Your task to perform on an android device: Clear the shopping cart on bestbuy. Search for bose soundsport free on bestbuy, select the first entry, add it to the cart, then select checkout. Image 0: 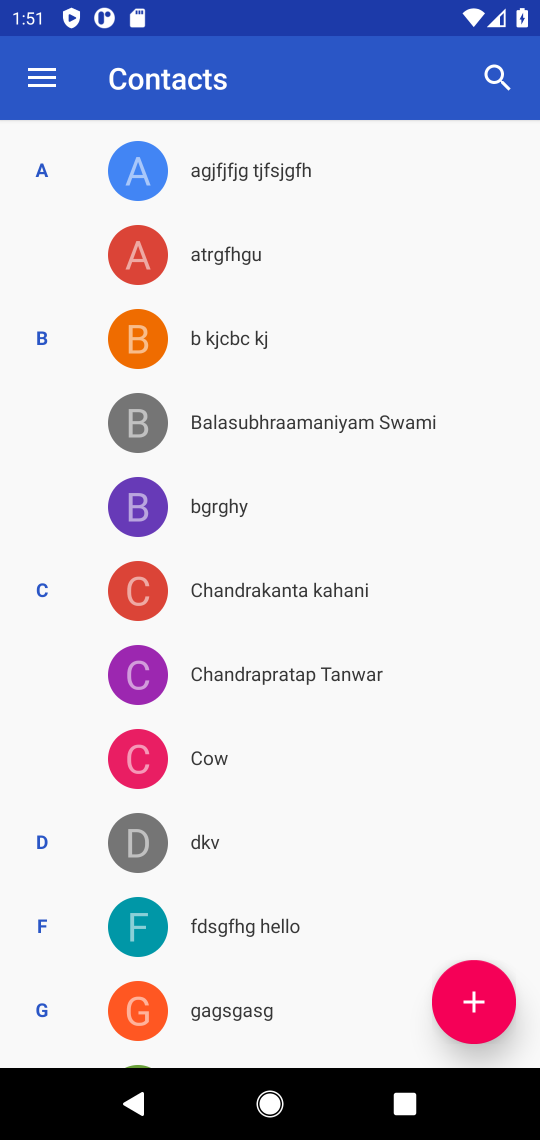
Step 0: press home button
Your task to perform on an android device: Clear the shopping cart on bestbuy. Search for bose soundsport free on bestbuy, select the first entry, add it to the cart, then select checkout. Image 1: 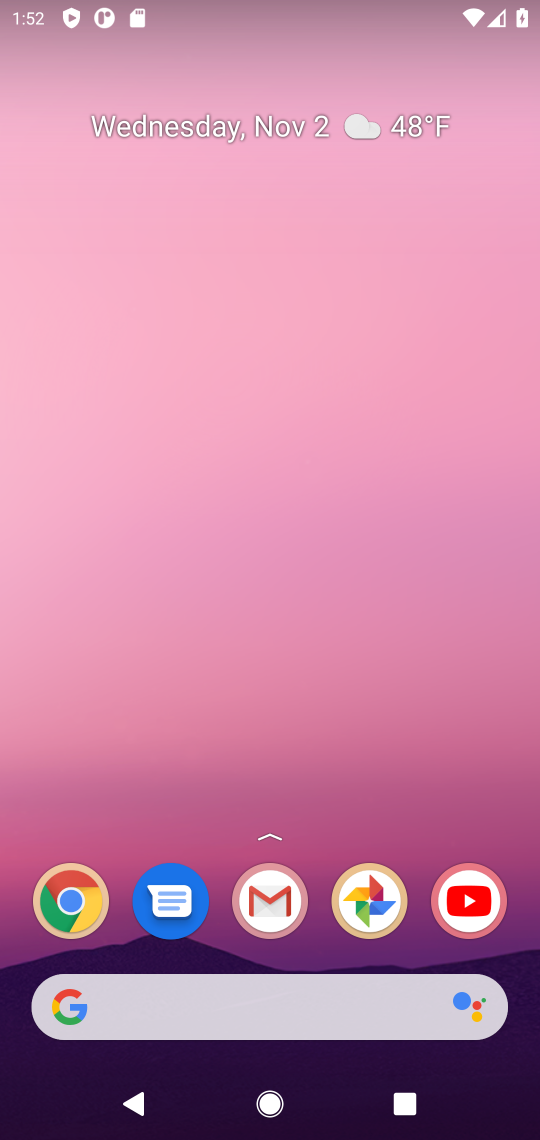
Step 1: drag from (300, 937) to (377, 84)
Your task to perform on an android device: Clear the shopping cart on bestbuy. Search for bose soundsport free on bestbuy, select the first entry, add it to the cart, then select checkout. Image 2: 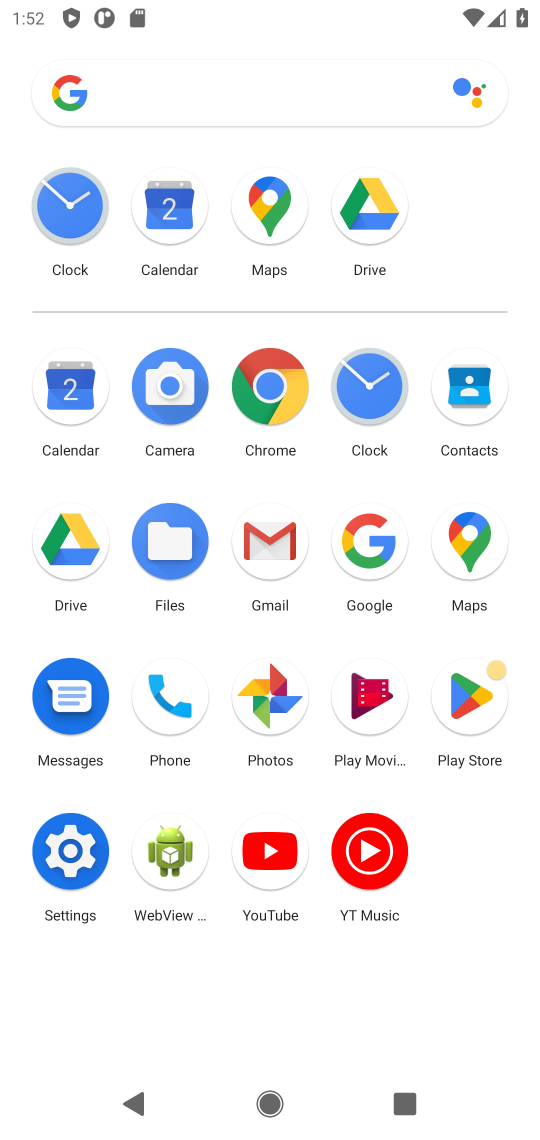
Step 2: click (271, 386)
Your task to perform on an android device: Clear the shopping cart on bestbuy. Search for bose soundsport free on bestbuy, select the first entry, add it to the cart, then select checkout. Image 3: 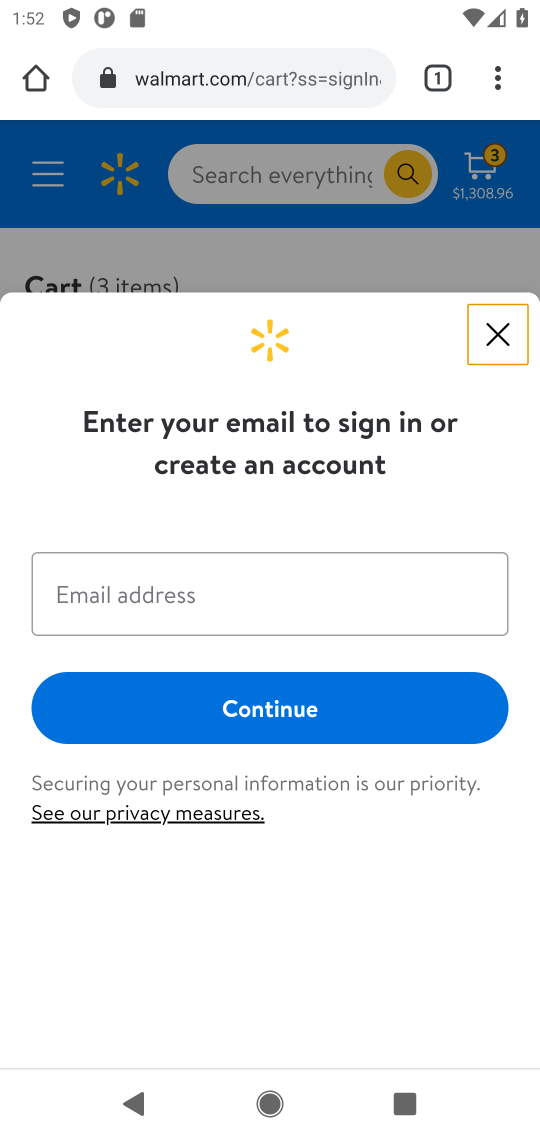
Step 3: click (294, 78)
Your task to perform on an android device: Clear the shopping cart on bestbuy. Search for bose soundsport free on bestbuy, select the first entry, add it to the cart, then select checkout. Image 4: 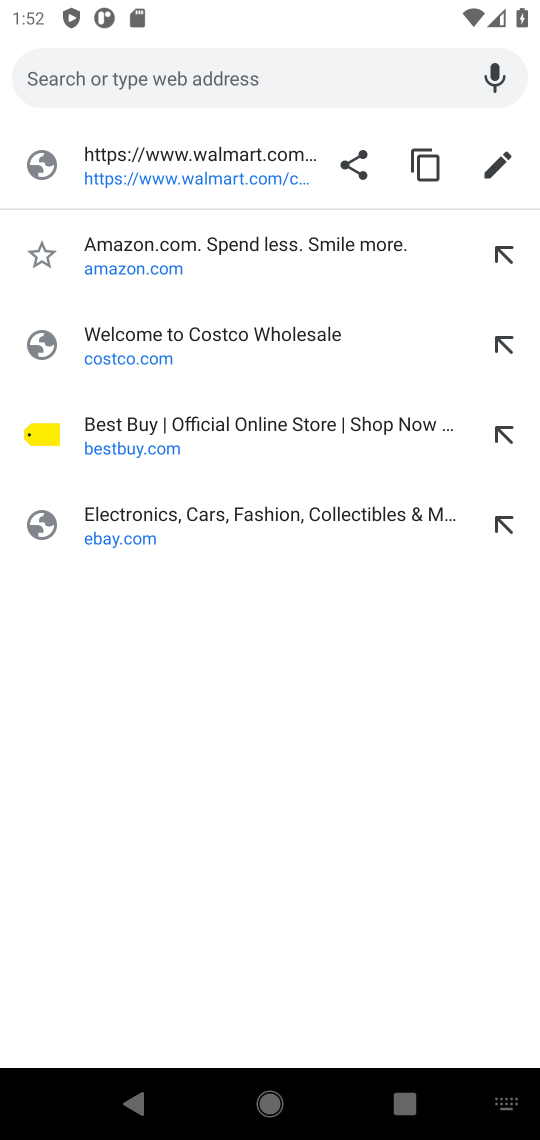
Step 4: type "bestbuy.com"
Your task to perform on an android device: Clear the shopping cart on bestbuy. Search for bose soundsport free on bestbuy, select the first entry, add it to the cart, then select checkout. Image 5: 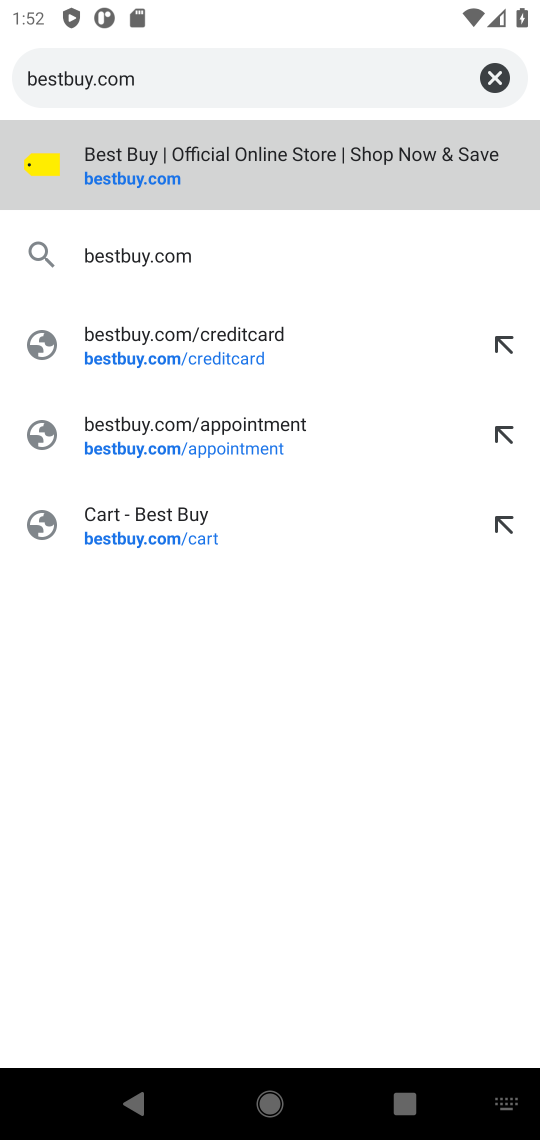
Step 5: press enter
Your task to perform on an android device: Clear the shopping cart on bestbuy. Search for bose soundsport free on bestbuy, select the first entry, add it to the cart, then select checkout. Image 6: 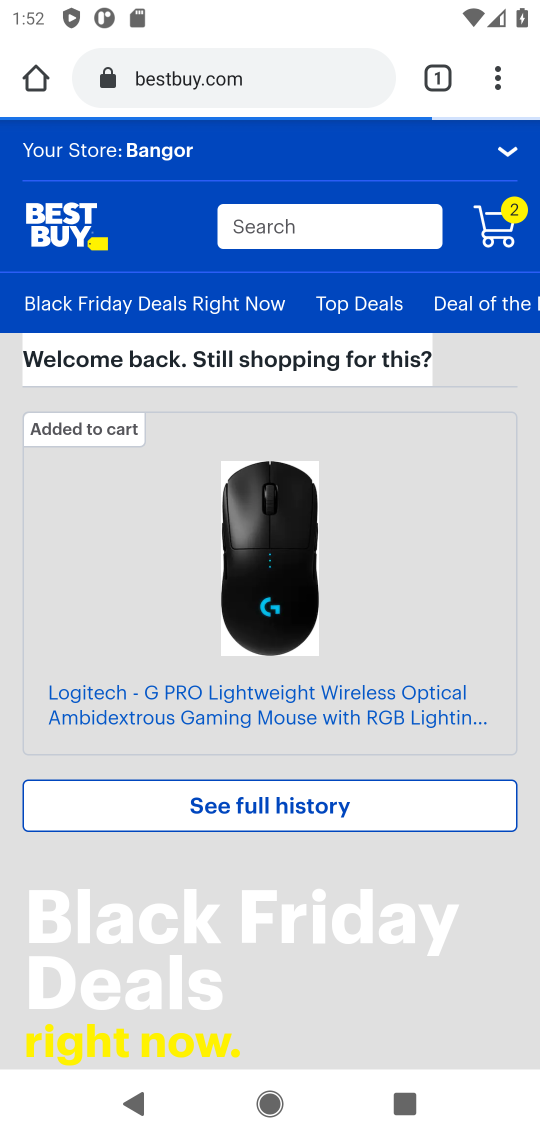
Step 6: click (488, 232)
Your task to perform on an android device: Clear the shopping cart on bestbuy. Search for bose soundsport free on bestbuy, select the first entry, add it to the cart, then select checkout. Image 7: 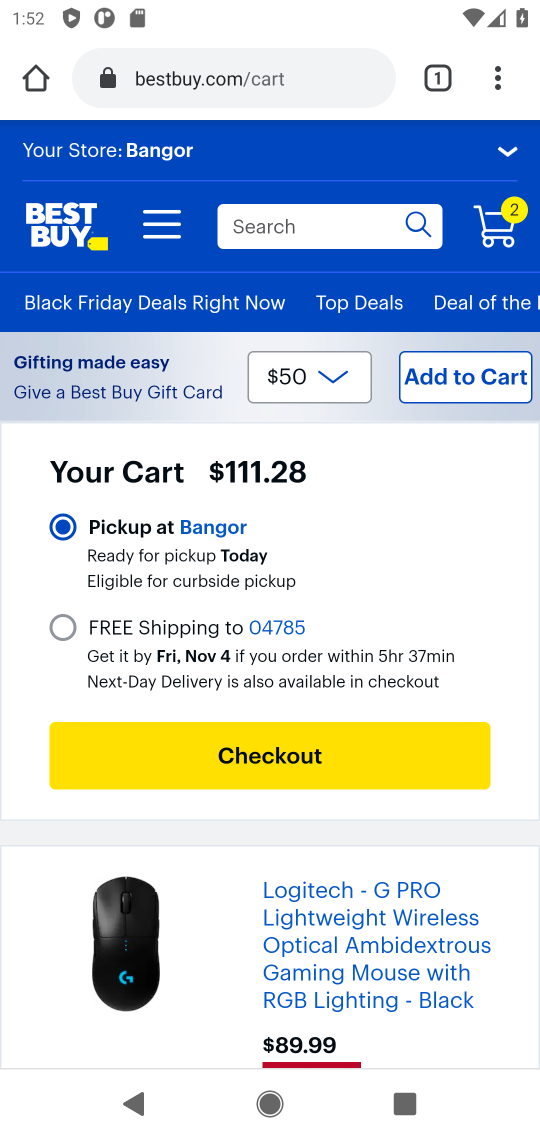
Step 7: drag from (373, 974) to (418, 579)
Your task to perform on an android device: Clear the shopping cart on bestbuy. Search for bose soundsport free on bestbuy, select the first entry, add it to the cart, then select checkout. Image 8: 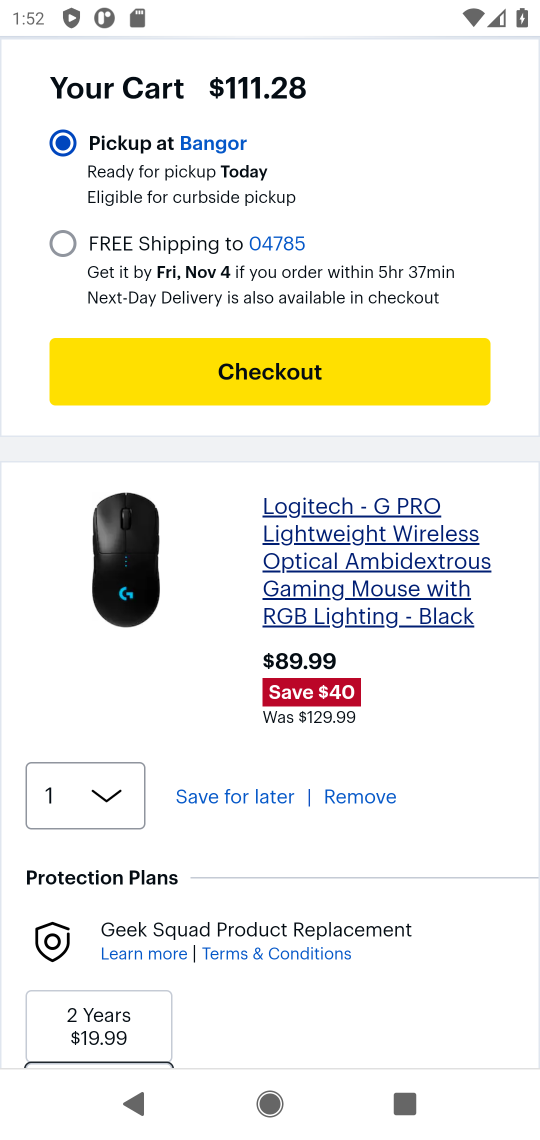
Step 8: click (368, 792)
Your task to perform on an android device: Clear the shopping cart on bestbuy. Search for bose soundsport free on bestbuy, select the first entry, add it to the cart, then select checkout. Image 9: 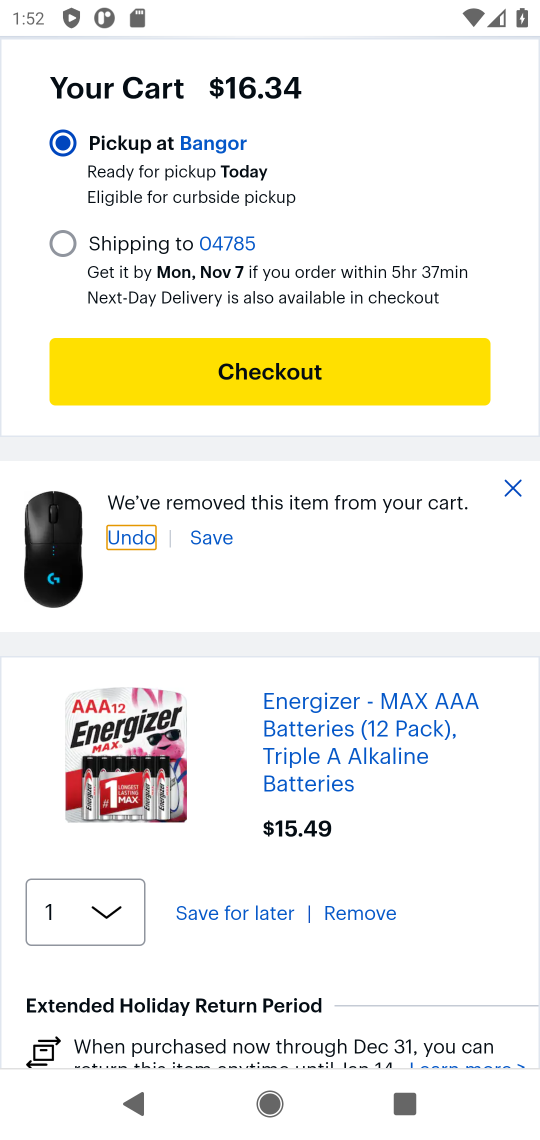
Step 9: click (382, 912)
Your task to perform on an android device: Clear the shopping cart on bestbuy. Search for bose soundsport free on bestbuy, select the first entry, add it to the cart, then select checkout. Image 10: 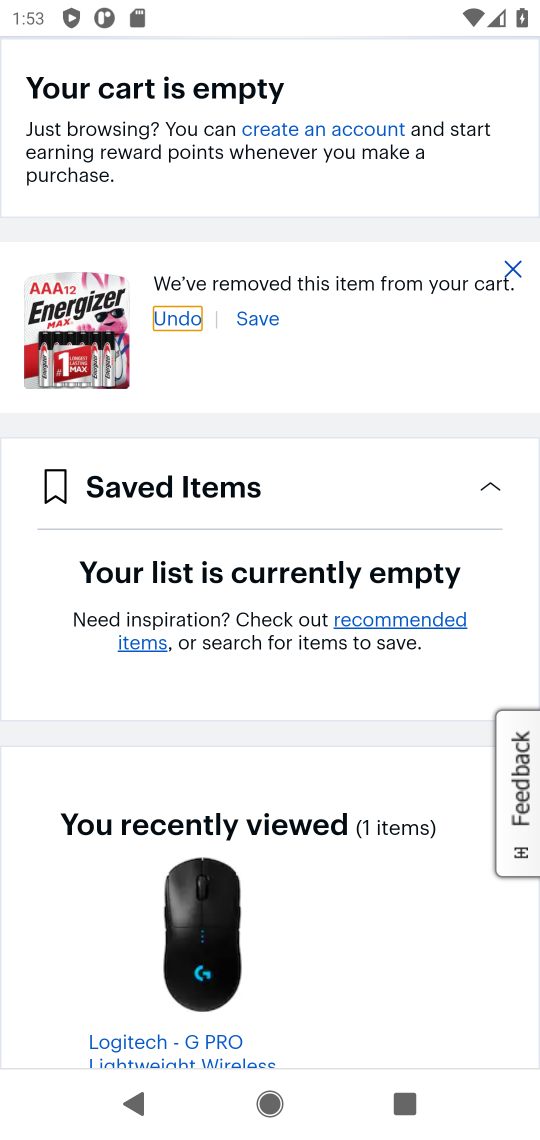
Step 10: task complete